Your task to perform on an android device: Show me popular games on the Play Store Image 0: 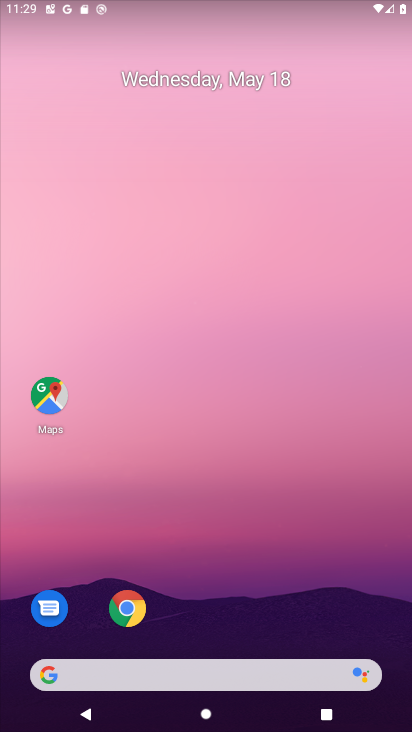
Step 0: drag from (227, 523) to (189, 238)
Your task to perform on an android device: Show me popular games on the Play Store Image 1: 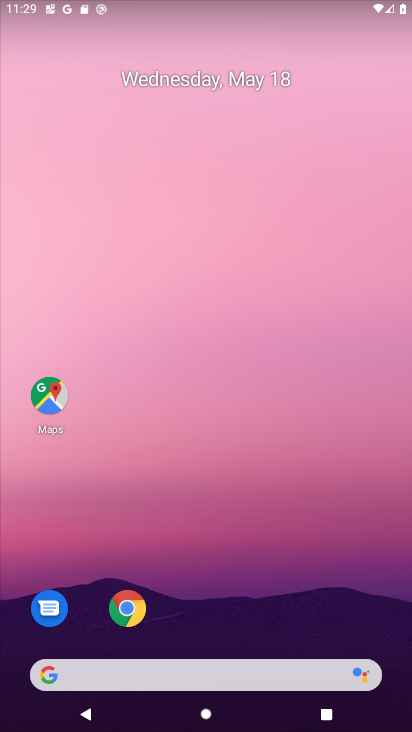
Step 1: drag from (194, 615) to (180, 168)
Your task to perform on an android device: Show me popular games on the Play Store Image 2: 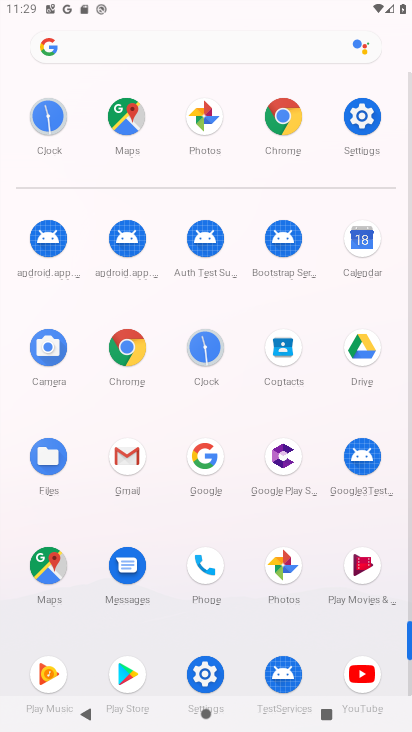
Step 2: click (119, 668)
Your task to perform on an android device: Show me popular games on the Play Store Image 3: 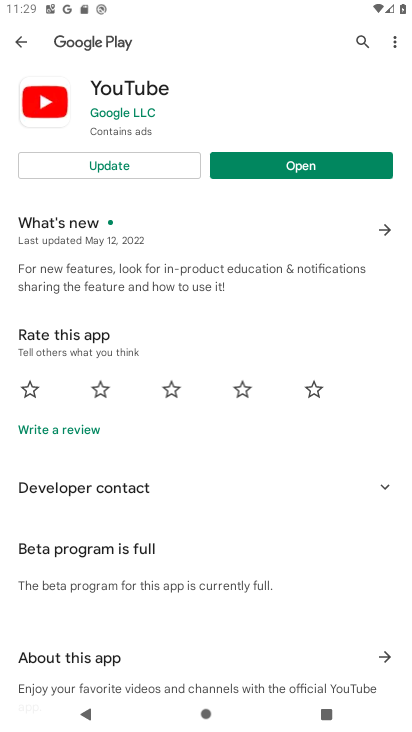
Step 3: press back button
Your task to perform on an android device: Show me popular games on the Play Store Image 4: 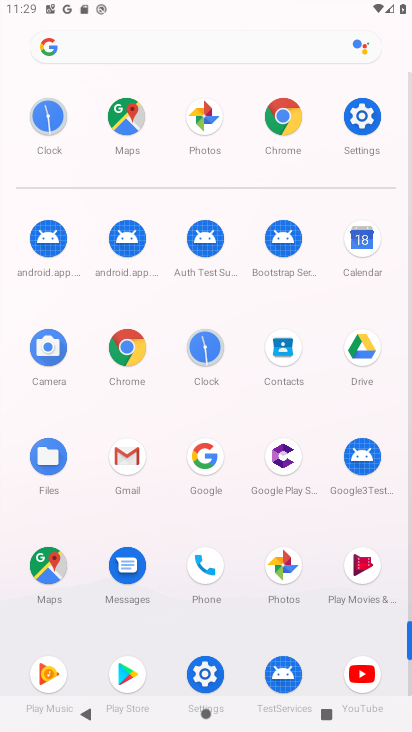
Step 4: click (119, 667)
Your task to perform on an android device: Show me popular games on the Play Store Image 5: 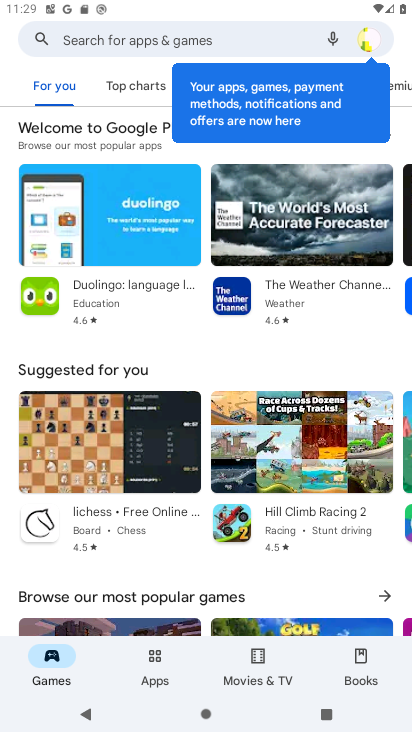
Step 5: click (141, 84)
Your task to perform on an android device: Show me popular games on the Play Store Image 6: 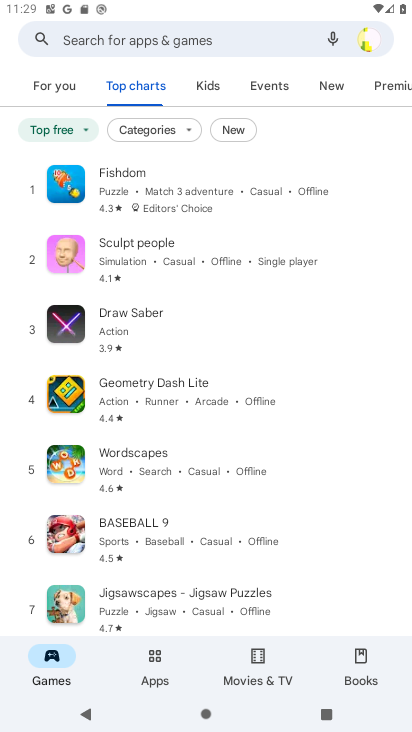
Step 6: click (77, 132)
Your task to perform on an android device: Show me popular games on the Play Store Image 7: 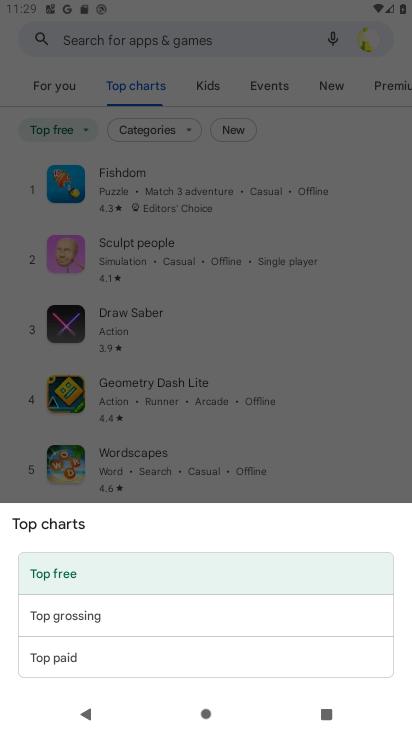
Step 7: click (60, 615)
Your task to perform on an android device: Show me popular games on the Play Store Image 8: 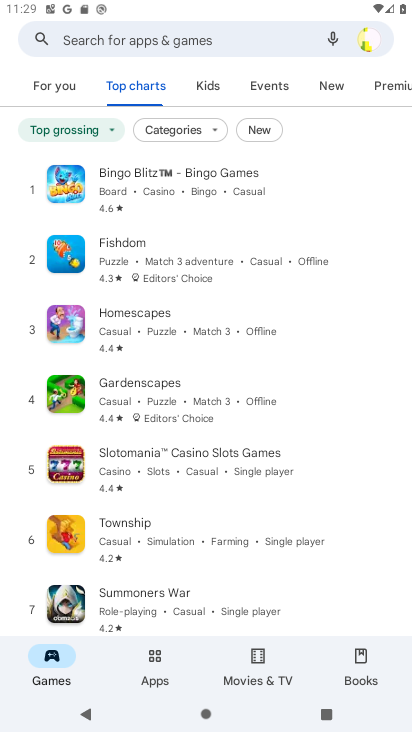
Step 8: task complete